Your task to perform on an android device: turn on translation in the chrome app Image 0: 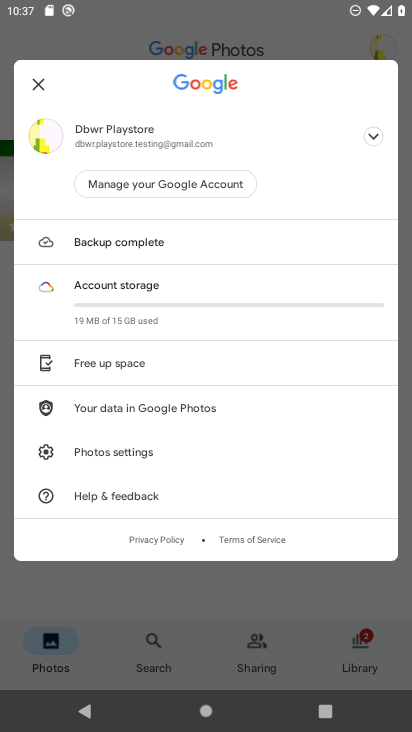
Step 0: press home button
Your task to perform on an android device: turn on translation in the chrome app Image 1: 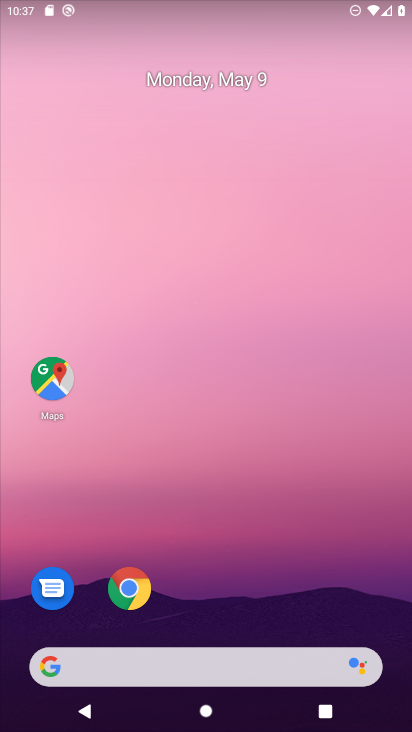
Step 1: click (118, 576)
Your task to perform on an android device: turn on translation in the chrome app Image 2: 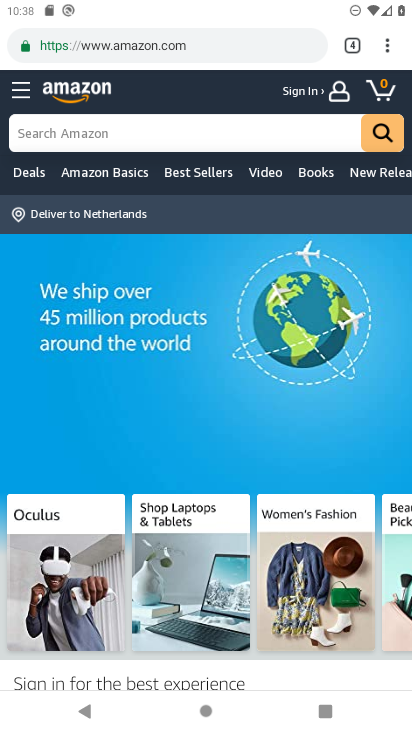
Step 2: click (390, 51)
Your task to perform on an android device: turn on translation in the chrome app Image 3: 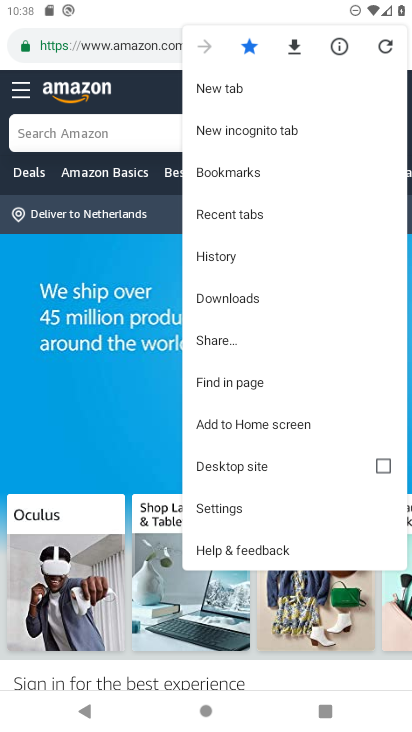
Step 3: click (235, 496)
Your task to perform on an android device: turn on translation in the chrome app Image 4: 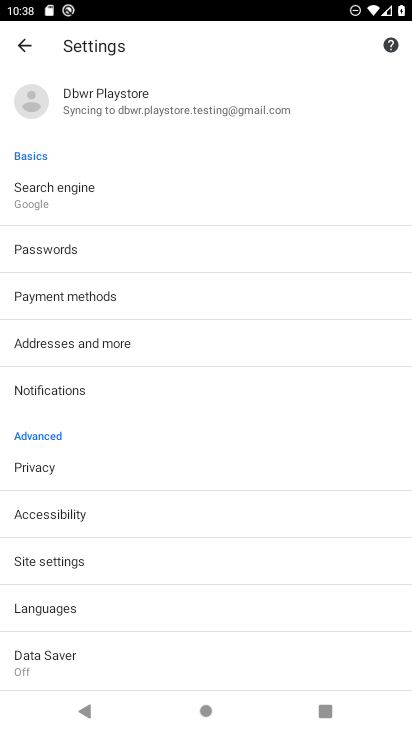
Step 4: click (122, 617)
Your task to perform on an android device: turn on translation in the chrome app Image 5: 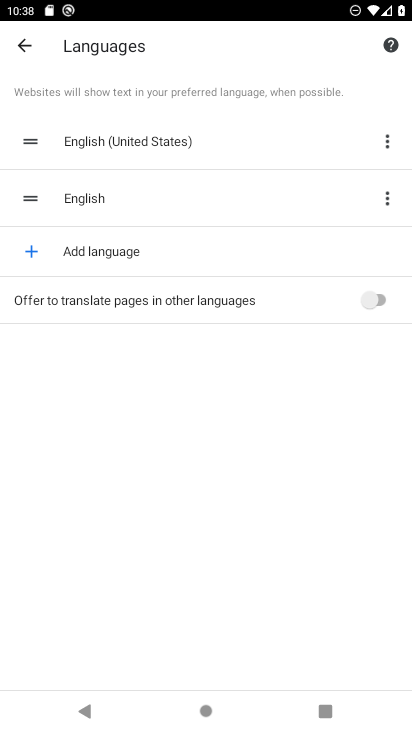
Step 5: click (386, 305)
Your task to perform on an android device: turn on translation in the chrome app Image 6: 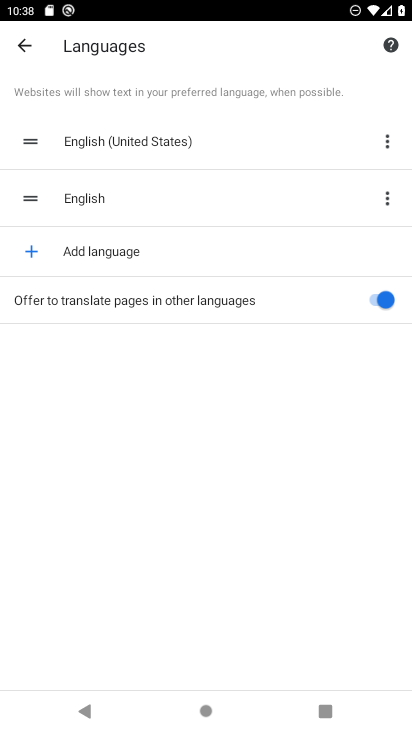
Step 6: task complete